Your task to perform on an android device: Go to network settings Image 0: 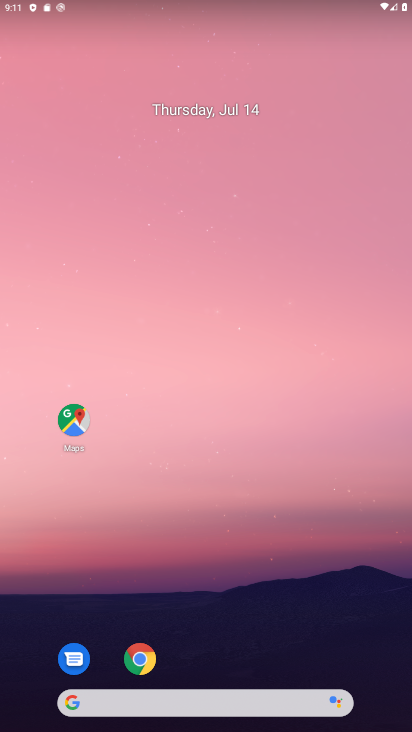
Step 0: drag from (196, 642) to (189, 12)
Your task to perform on an android device: Go to network settings Image 1: 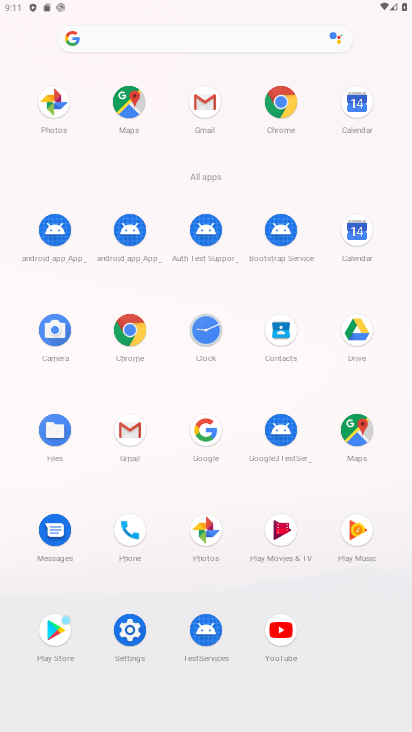
Step 1: click (119, 626)
Your task to perform on an android device: Go to network settings Image 2: 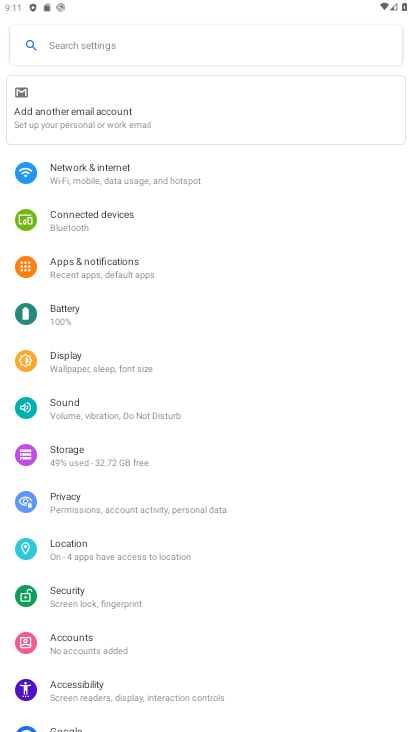
Step 2: click (126, 160)
Your task to perform on an android device: Go to network settings Image 3: 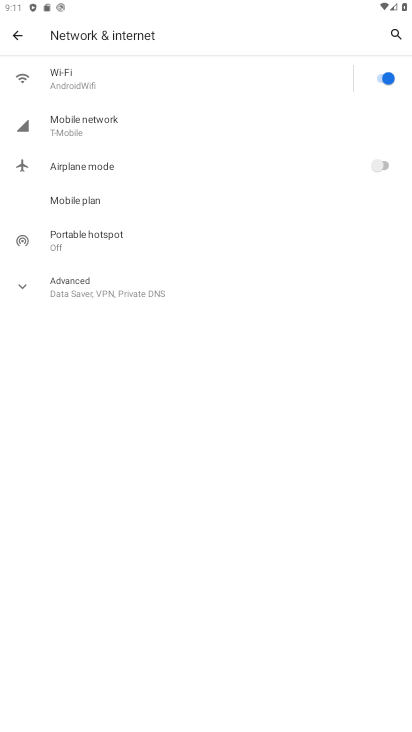
Step 3: task complete